Your task to perform on an android device: Search for seafood restaurants on Google Maps Image 0: 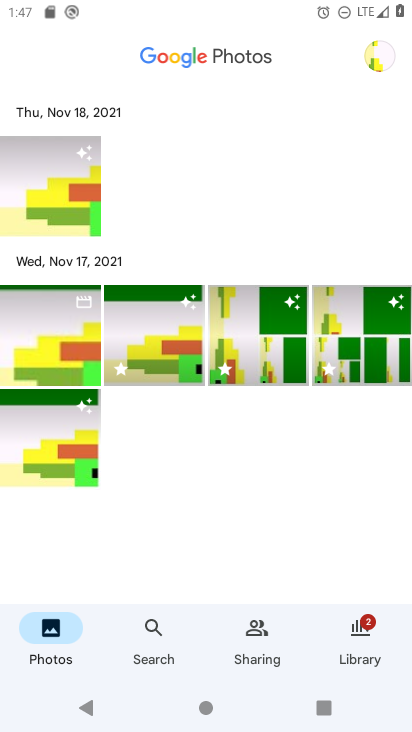
Step 0: press home button
Your task to perform on an android device: Search for seafood restaurants on Google Maps Image 1: 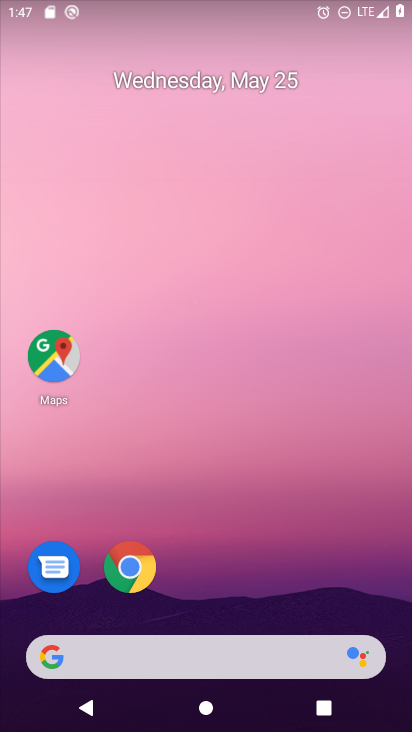
Step 1: click (43, 358)
Your task to perform on an android device: Search for seafood restaurants on Google Maps Image 2: 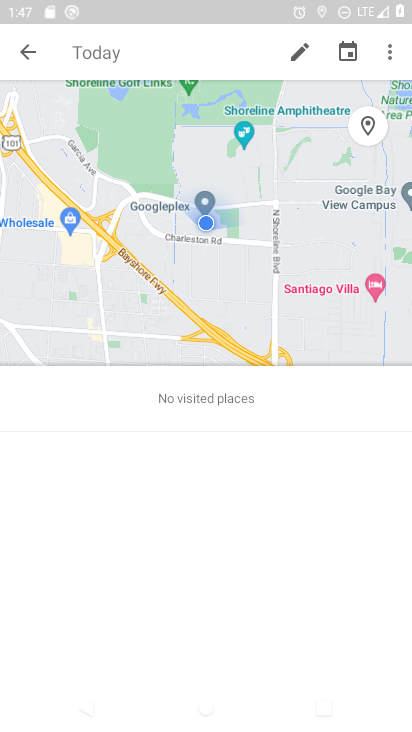
Step 2: click (16, 45)
Your task to perform on an android device: Search for seafood restaurants on Google Maps Image 3: 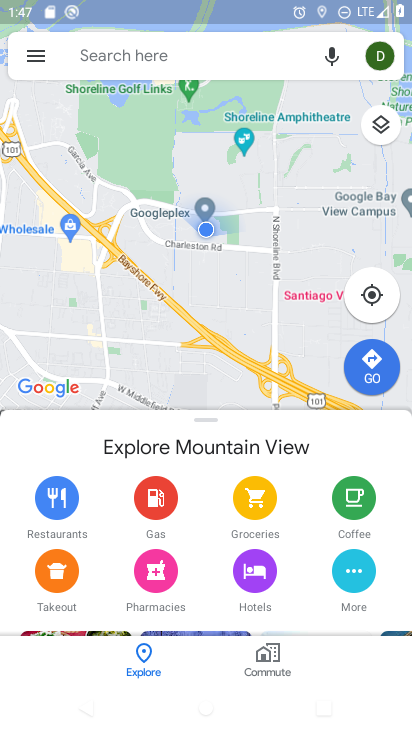
Step 3: click (90, 60)
Your task to perform on an android device: Search for seafood restaurants on Google Maps Image 4: 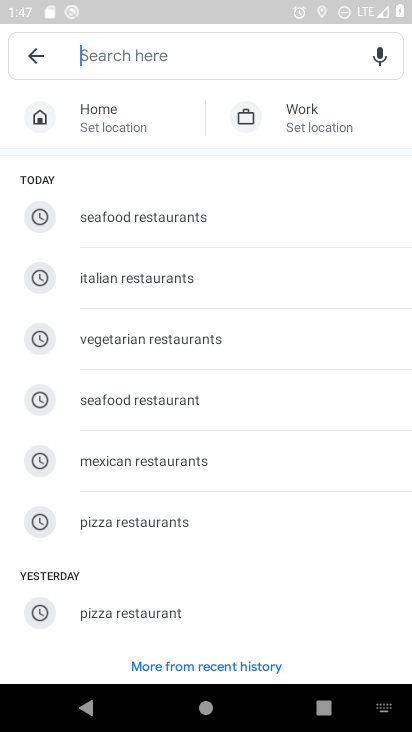
Step 4: type "seafood restaurants "
Your task to perform on an android device: Search for seafood restaurants on Google Maps Image 5: 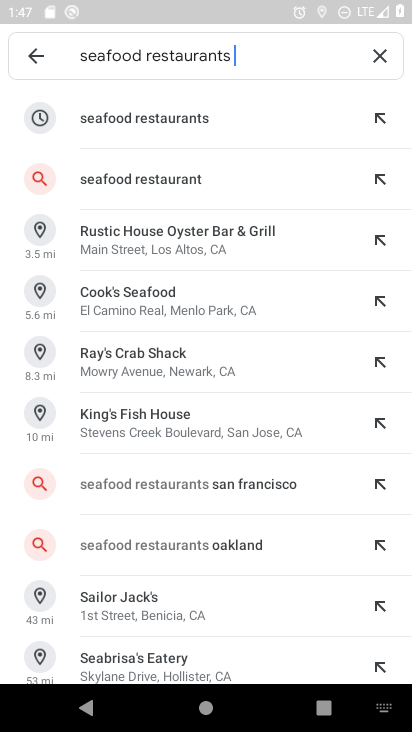
Step 5: click (189, 115)
Your task to perform on an android device: Search for seafood restaurants on Google Maps Image 6: 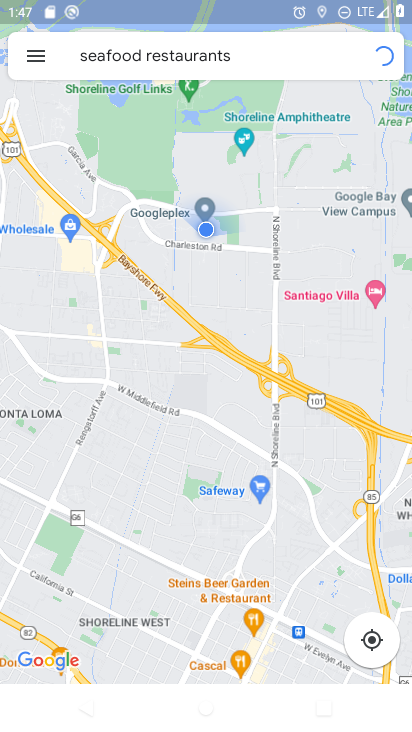
Step 6: task complete